Your task to perform on an android device: Open eBay Image 0: 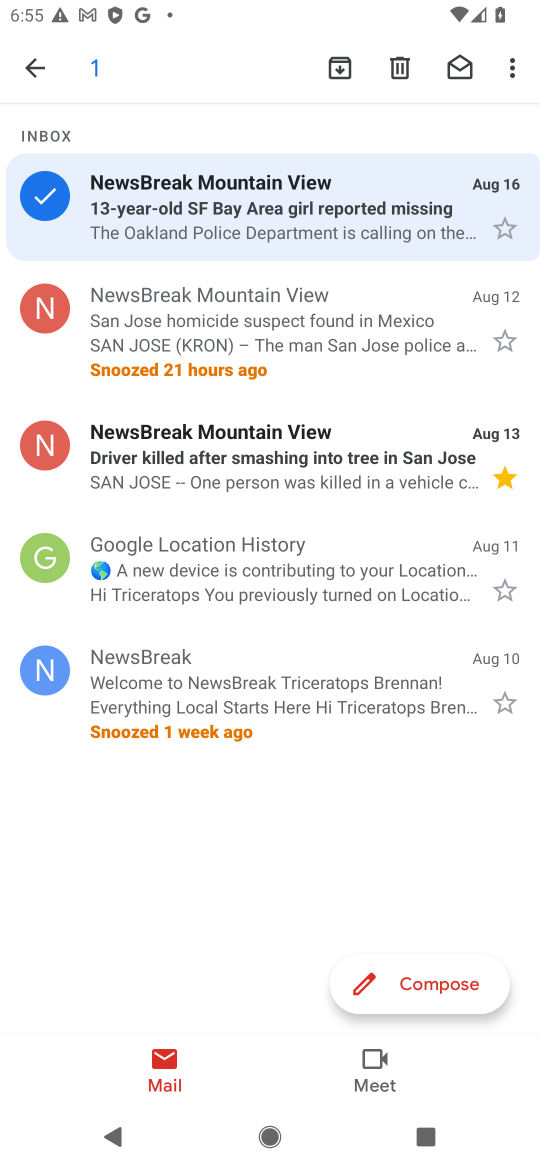
Step 0: press home button
Your task to perform on an android device: Open eBay Image 1: 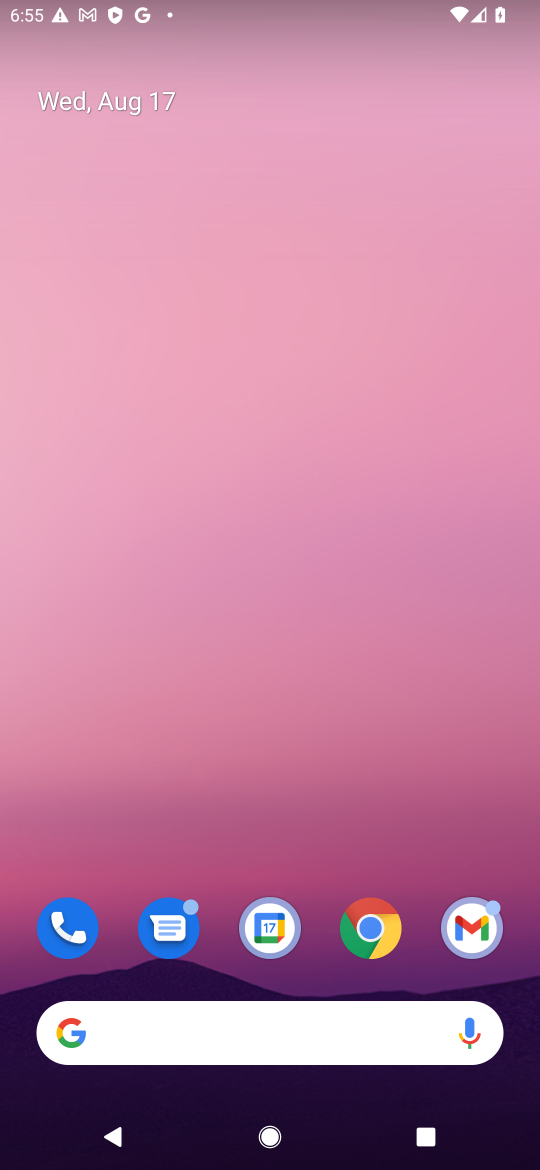
Step 1: click (374, 935)
Your task to perform on an android device: Open eBay Image 2: 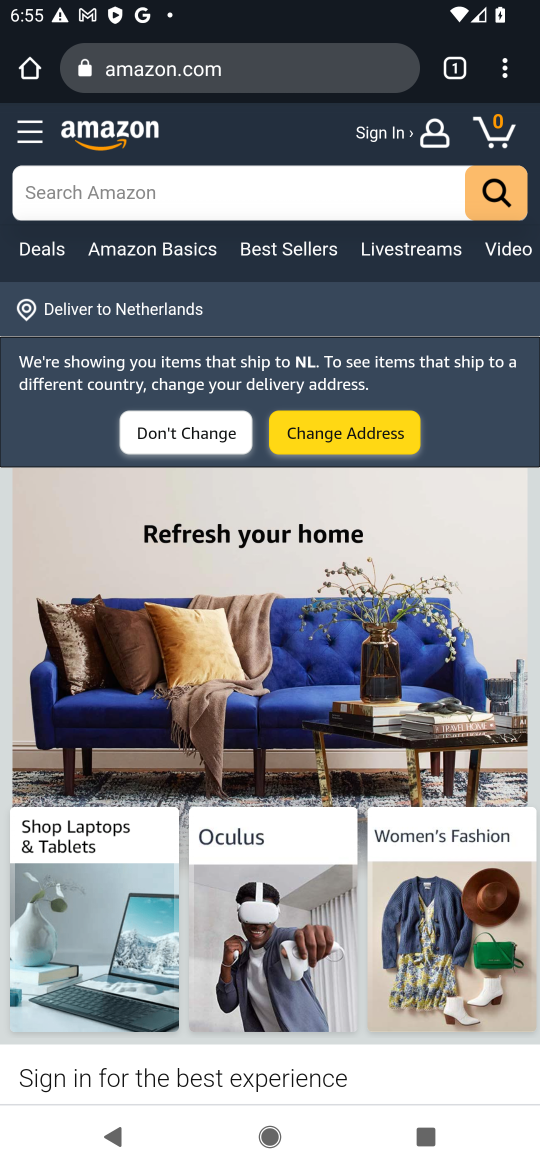
Step 2: click (226, 80)
Your task to perform on an android device: Open eBay Image 3: 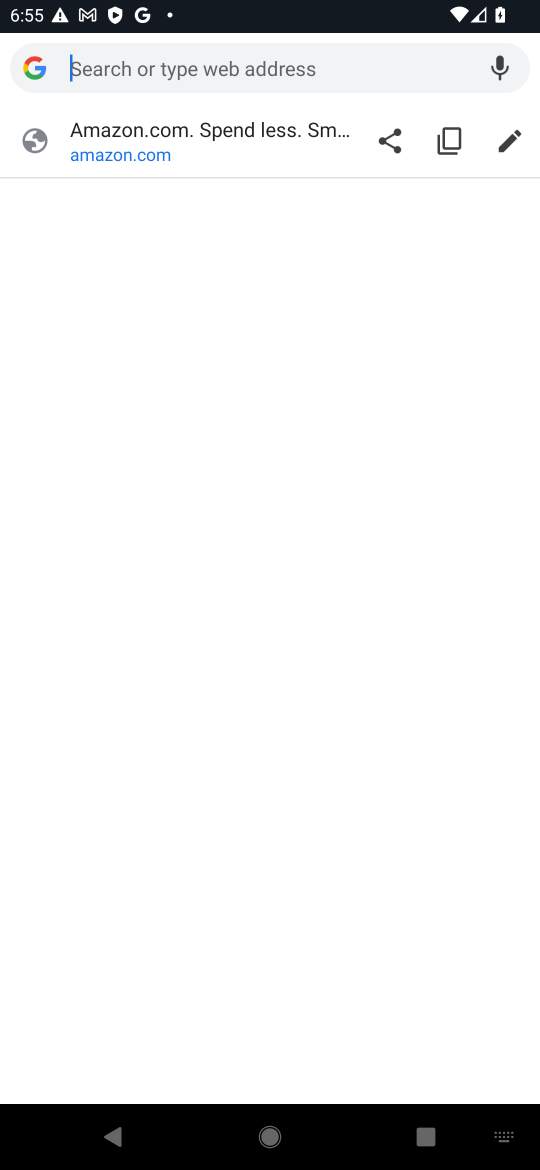
Step 3: type "ebay"
Your task to perform on an android device: Open eBay Image 4: 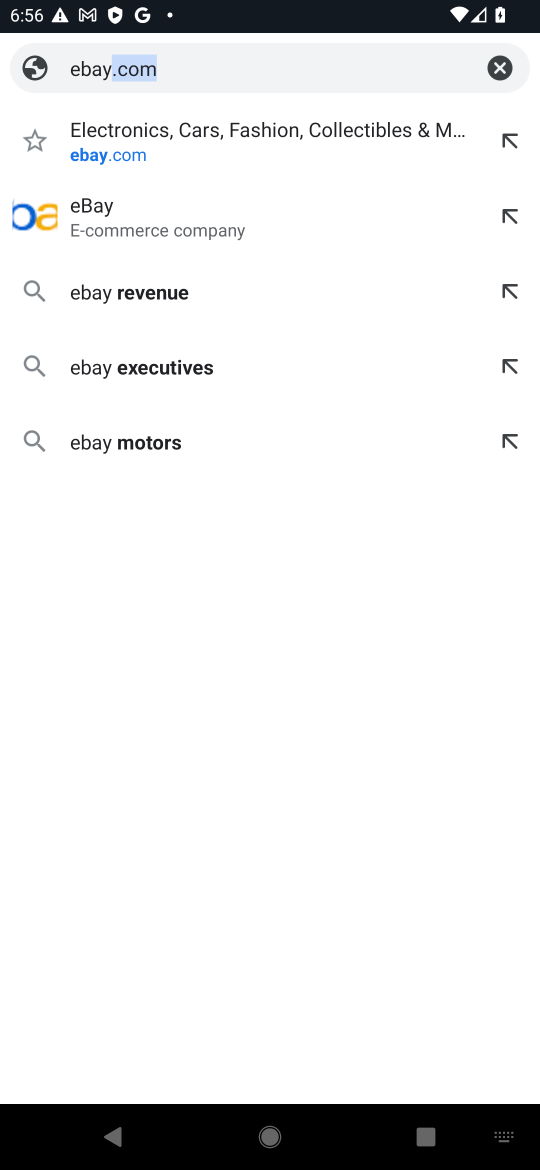
Step 4: click (211, 146)
Your task to perform on an android device: Open eBay Image 5: 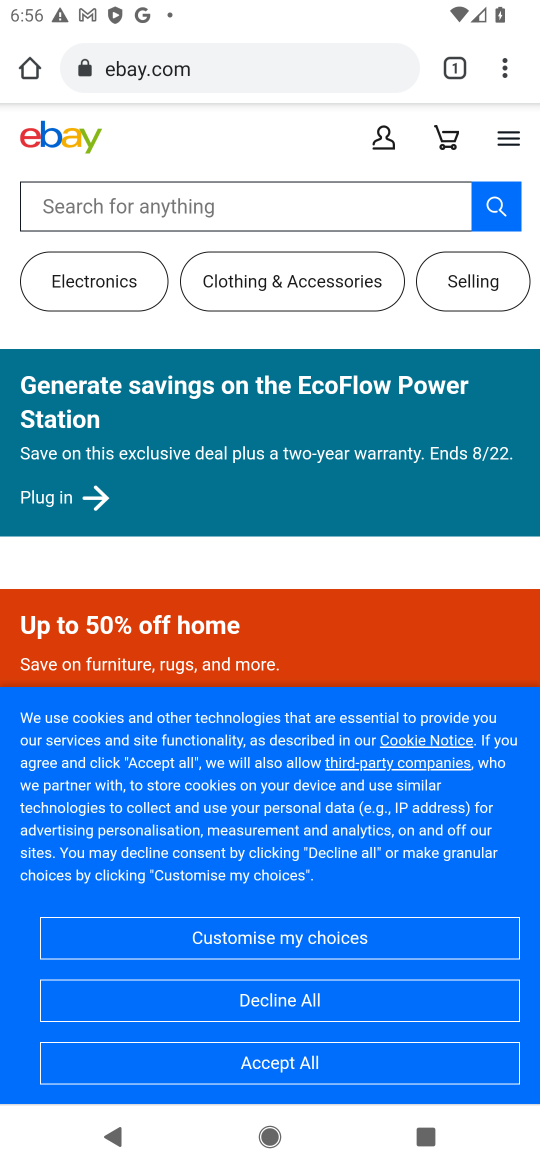
Step 5: task complete